Your task to perform on an android device: turn off airplane mode Image 0: 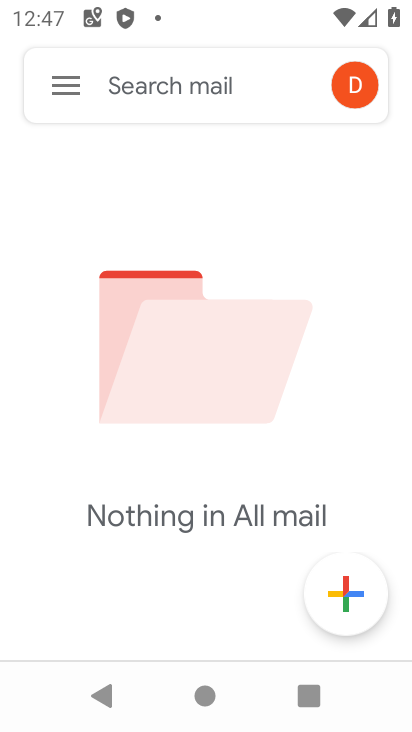
Step 0: press home button
Your task to perform on an android device: turn off airplane mode Image 1: 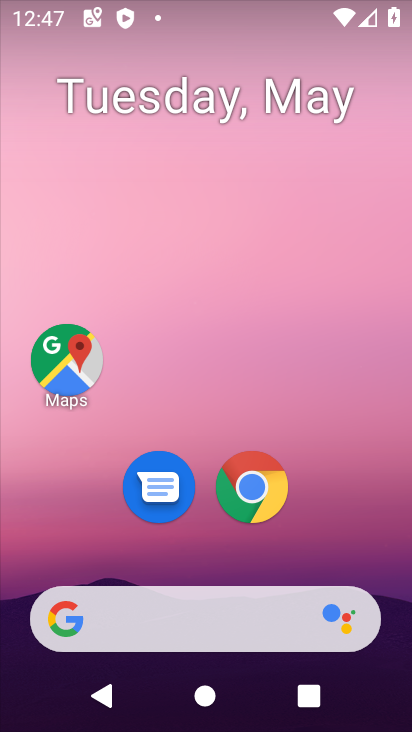
Step 1: drag from (295, 540) to (246, 49)
Your task to perform on an android device: turn off airplane mode Image 2: 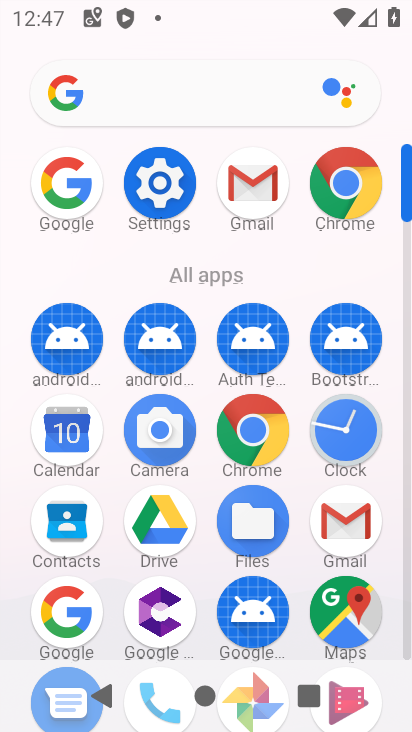
Step 2: click (175, 167)
Your task to perform on an android device: turn off airplane mode Image 3: 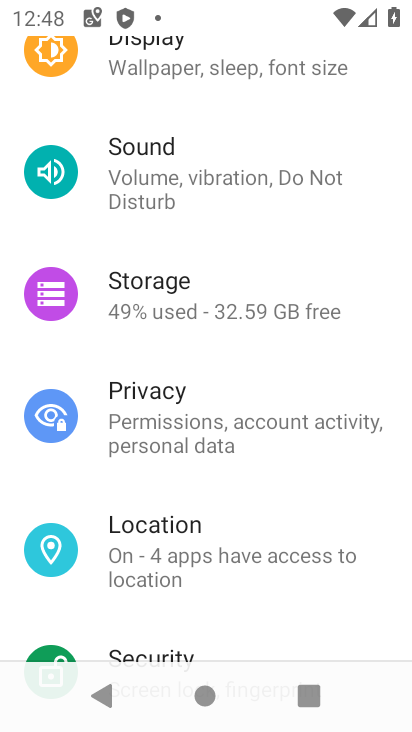
Step 3: drag from (286, 138) to (216, 504)
Your task to perform on an android device: turn off airplane mode Image 4: 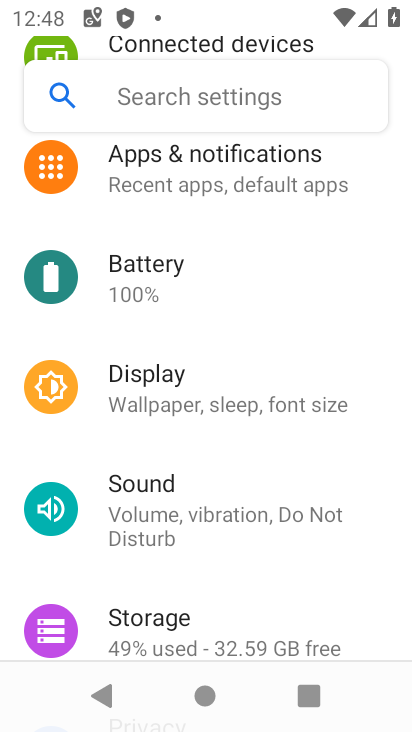
Step 4: drag from (249, 232) to (243, 530)
Your task to perform on an android device: turn off airplane mode Image 5: 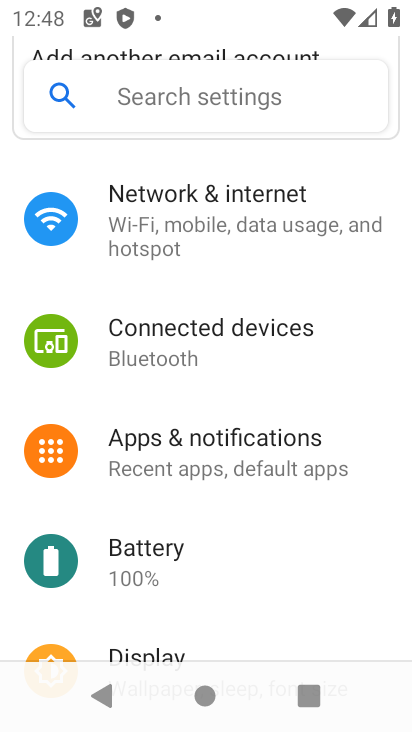
Step 5: click (226, 221)
Your task to perform on an android device: turn off airplane mode Image 6: 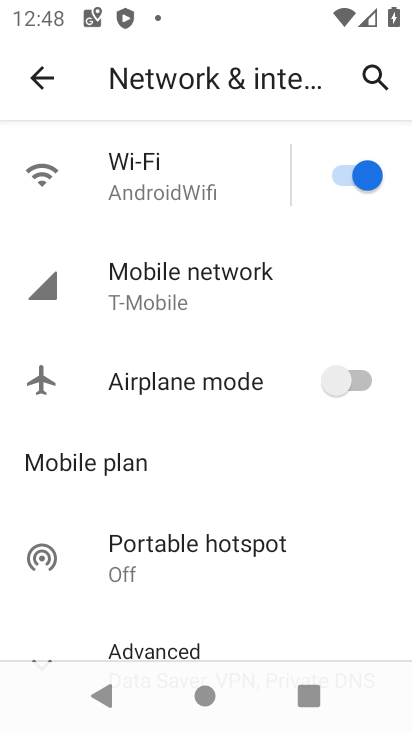
Step 6: task complete